Your task to perform on an android device: What is the recent news? Image 0: 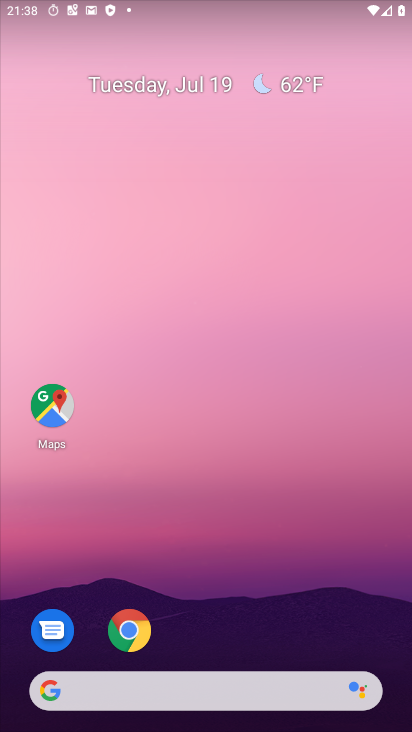
Step 0: click (90, 691)
Your task to perform on an android device: What is the recent news? Image 1: 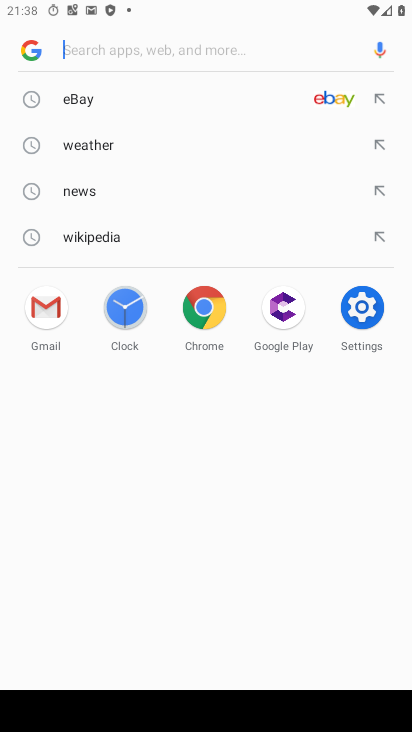
Step 1: type "What is the recent news?"
Your task to perform on an android device: What is the recent news? Image 2: 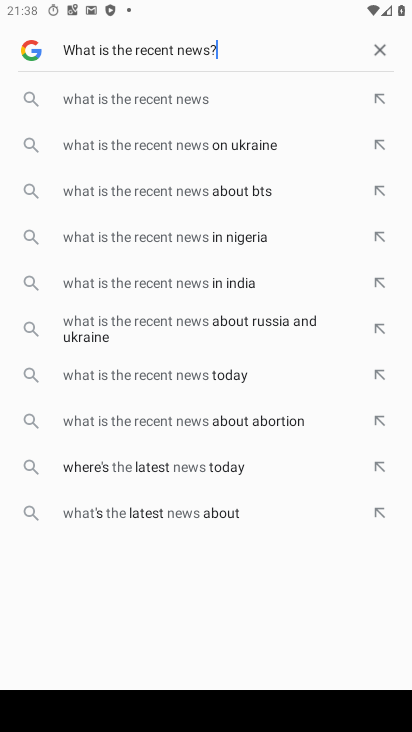
Step 2: type ""
Your task to perform on an android device: What is the recent news? Image 3: 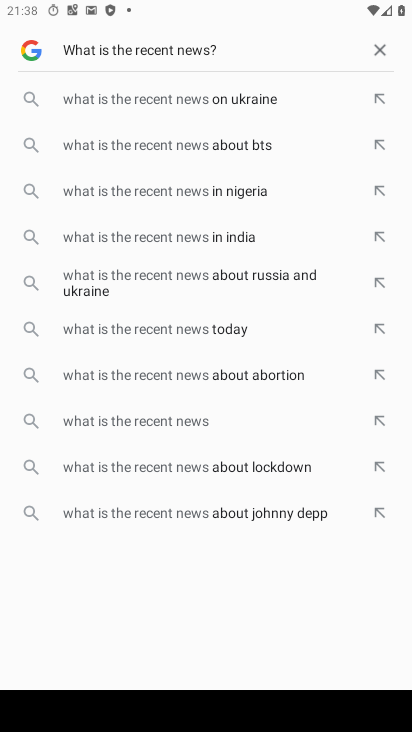
Step 3: type ""
Your task to perform on an android device: What is the recent news? Image 4: 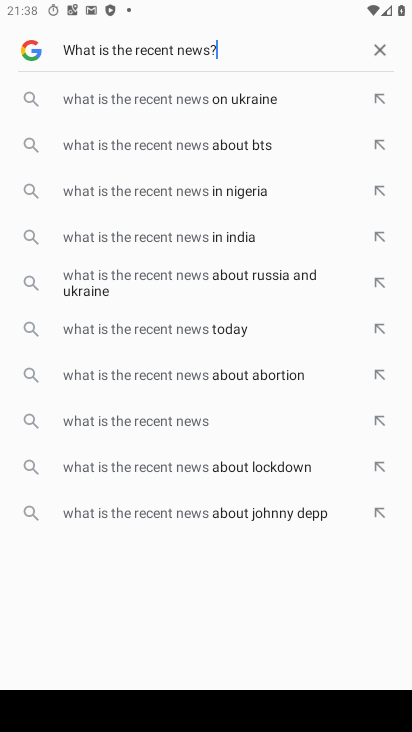
Step 4: type ""
Your task to perform on an android device: What is the recent news? Image 5: 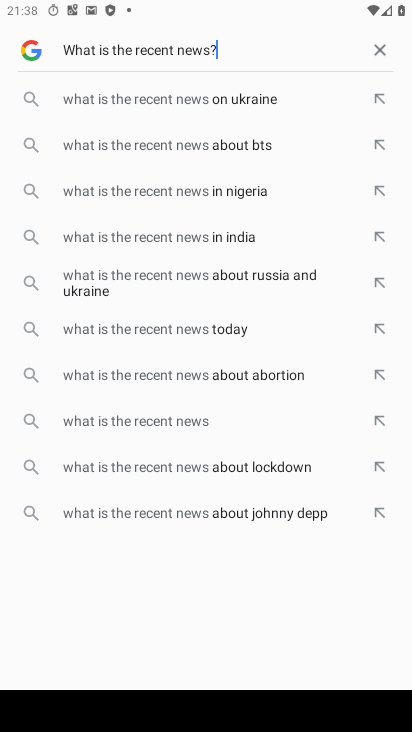
Step 5: task complete